Your task to perform on an android device: Open Youtube and go to "Your channel" Image 0: 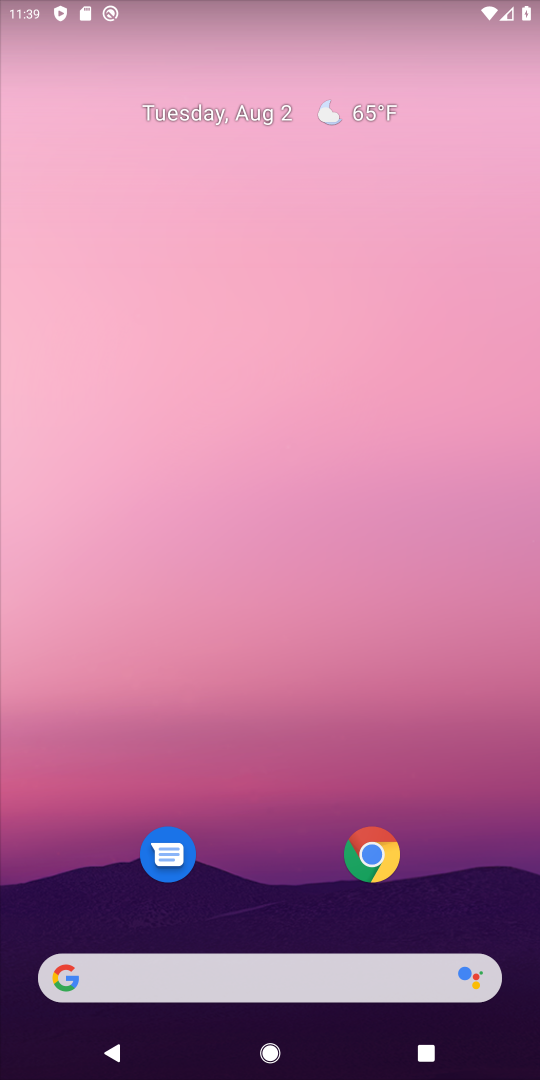
Step 0: drag from (259, 863) to (333, 149)
Your task to perform on an android device: Open Youtube and go to "Your channel" Image 1: 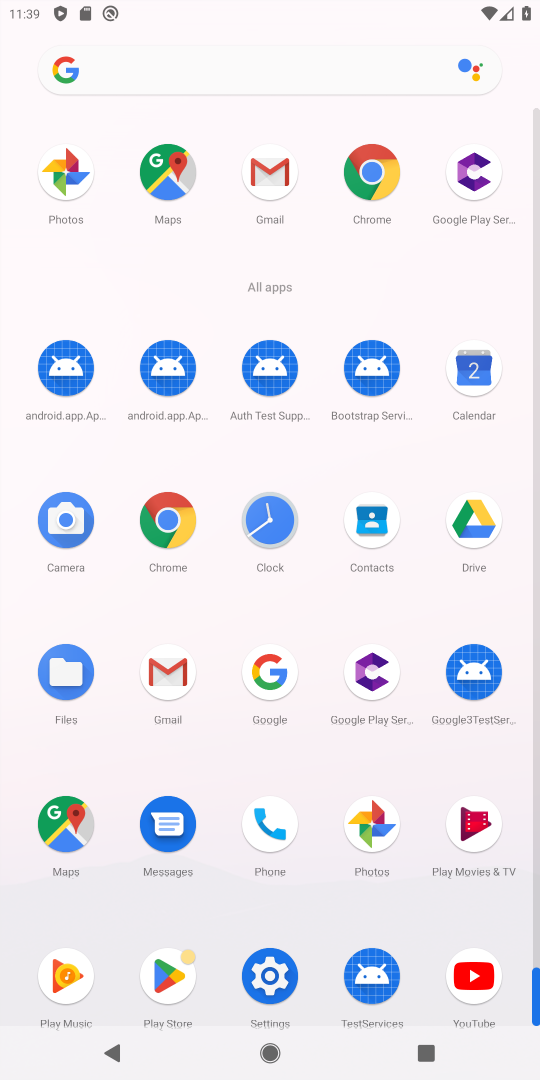
Step 1: click (485, 985)
Your task to perform on an android device: Open Youtube and go to "Your channel" Image 2: 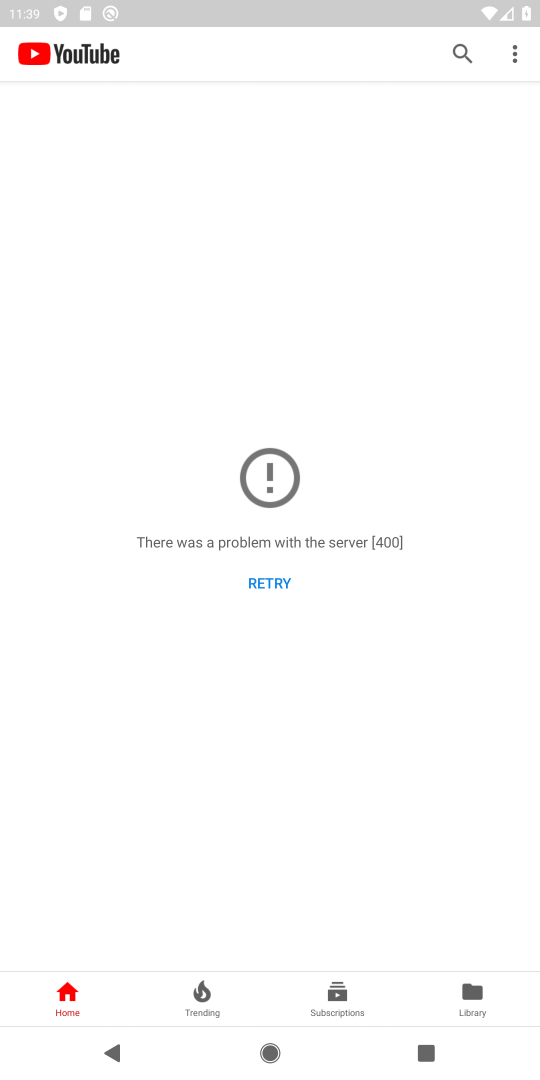
Step 2: click (509, 53)
Your task to perform on an android device: Open Youtube and go to "Your channel" Image 3: 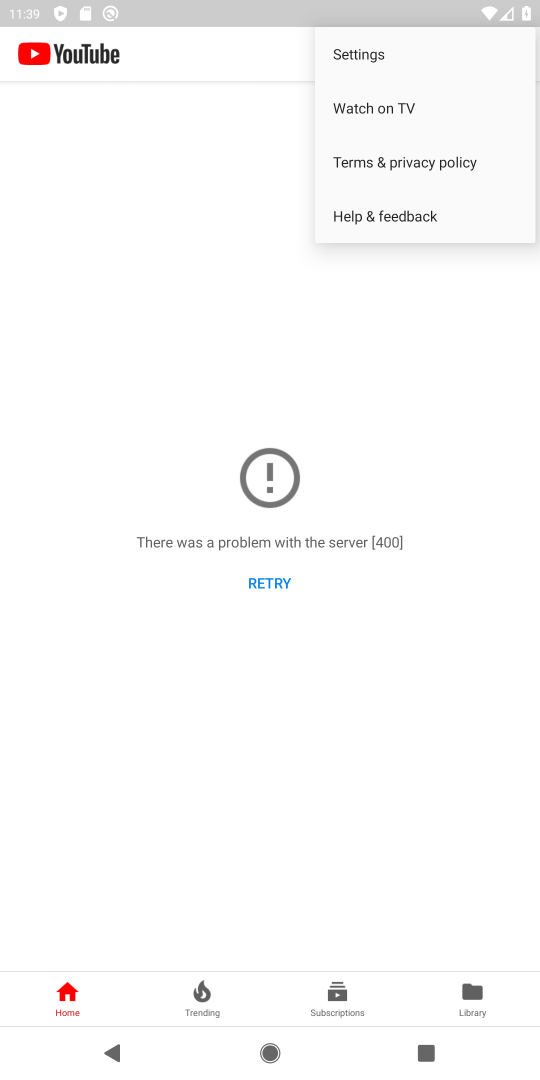
Step 3: click (478, 982)
Your task to perform on an android device: Open Youtube and go to "Your channel" Image 4: 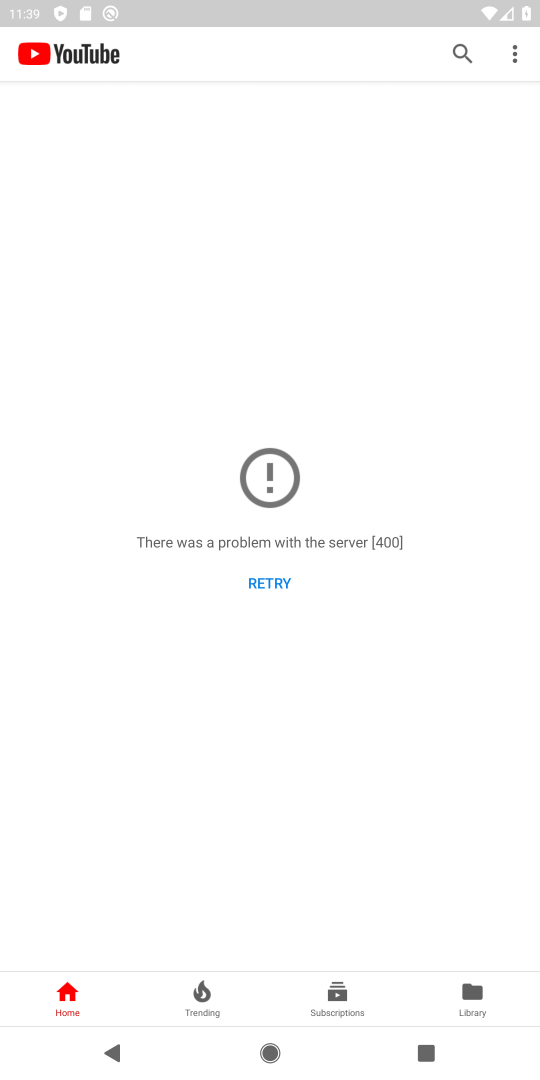
Step 4: click (470, 998)
Your task to perform on an android device: Open Youtube and go to "Your channel" Image 5: 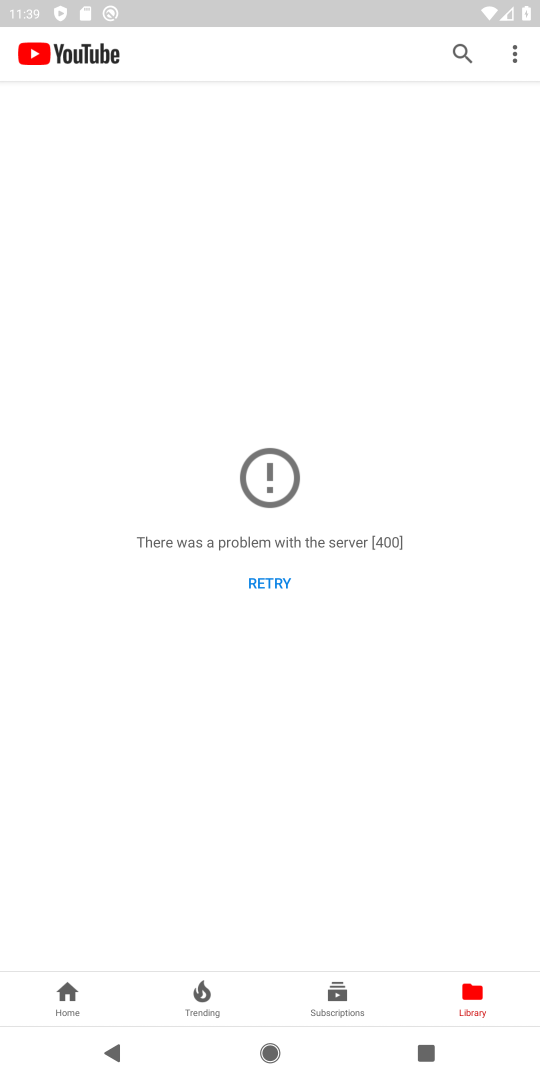
Step 5: task complete